Your task to perform on an android device: turn on improve location accuracy Image 0: 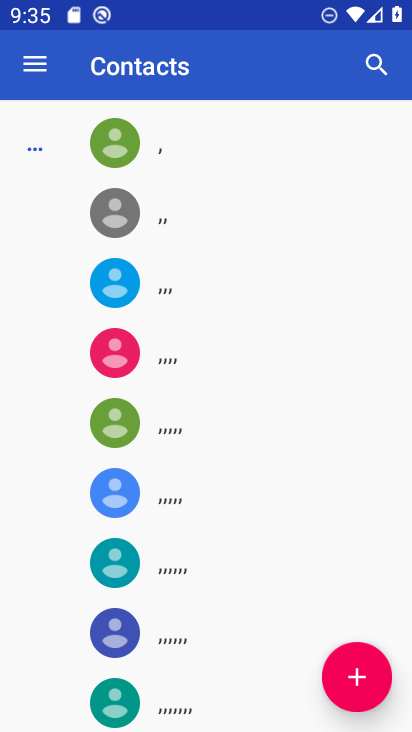
Step 0: press home button
Your task to perform on an android device: turn on improve location accuracy Image 1: 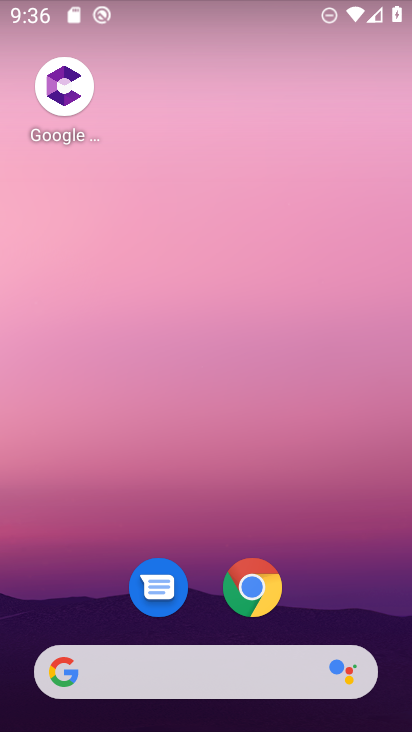
Step 1: drag from (200, 640) to (70, 7)
Your task to perform on an android device: turn on improve location accuracy Image 2: 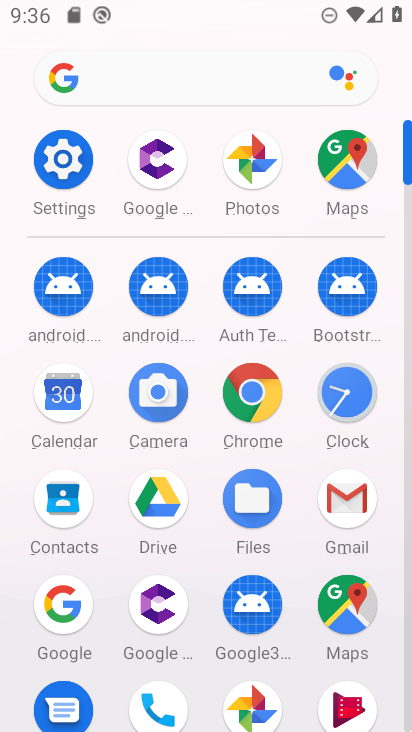
Step 2: click (71, 168)
Your task to perform on an android device: turn on improve location accuracy Image 3: 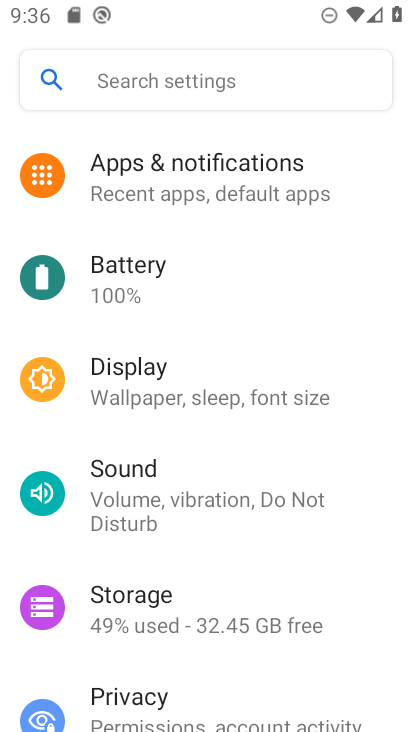
Step 3: drag from (168, 626) to (100, 241)
Your task to perform on an android device: turn on improve location accuracy Image 4: 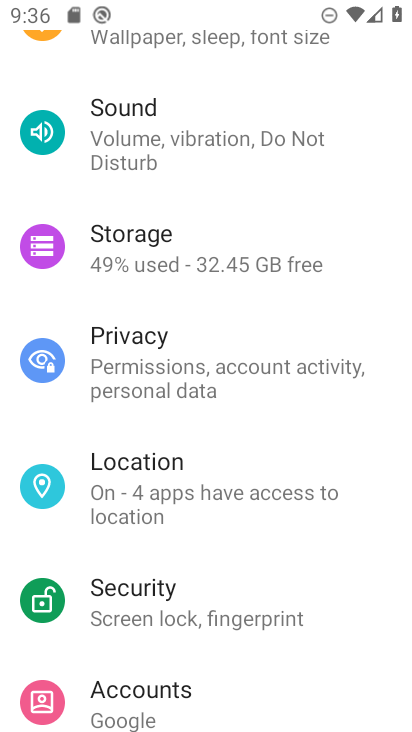
Step 4: click (139, 507)
Your task to perform on an android device: turn on improve location accuracy Image 5: 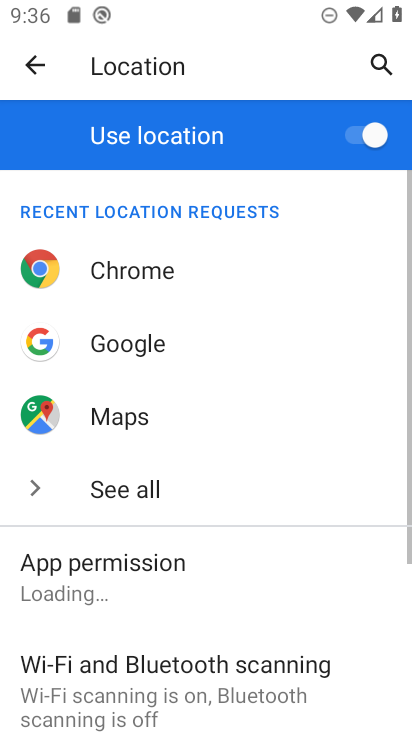
Step 5: drag from (196, 655) to (139, 274)
Your task to perform on an android device: turn on improve location accuracy Image 6: 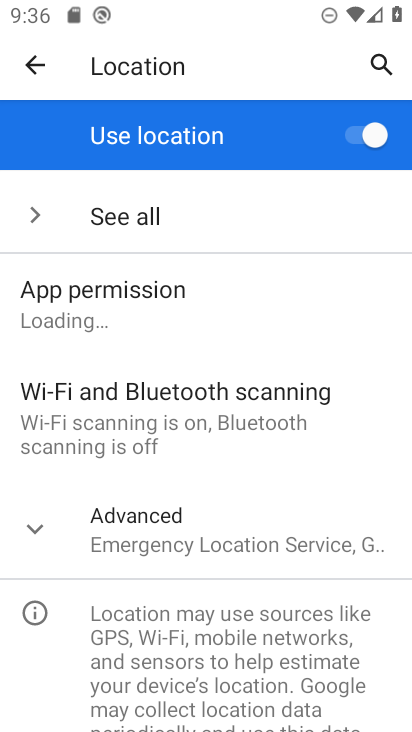
Step 6: click (179, 547)
Your task to perform on an android device: turn on improve location accuracy Image 7: 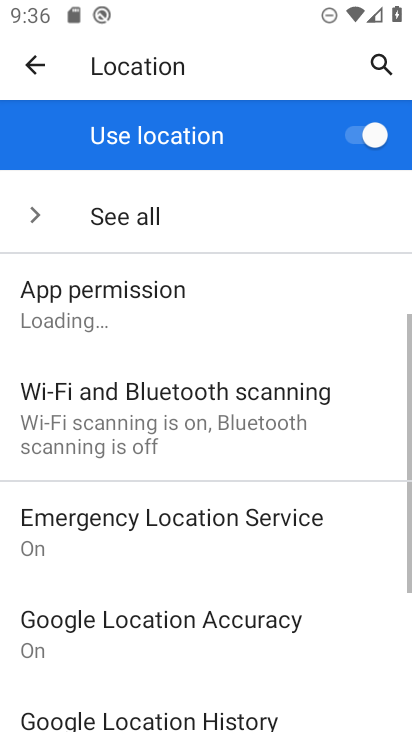
Step 7: drag from (179, 547) to (200, 189)
Your task to perform on an android device: turn on improve location accuracy Image 8: 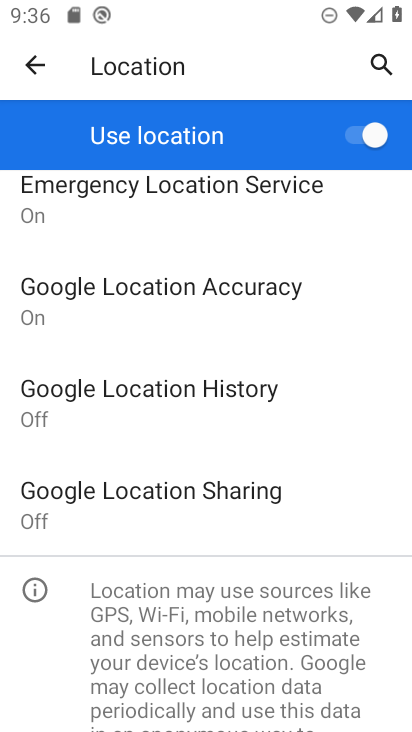
Step 8: click (211, 301)
Your task to perform on an android device: turn on improve location accuracy Image 9: 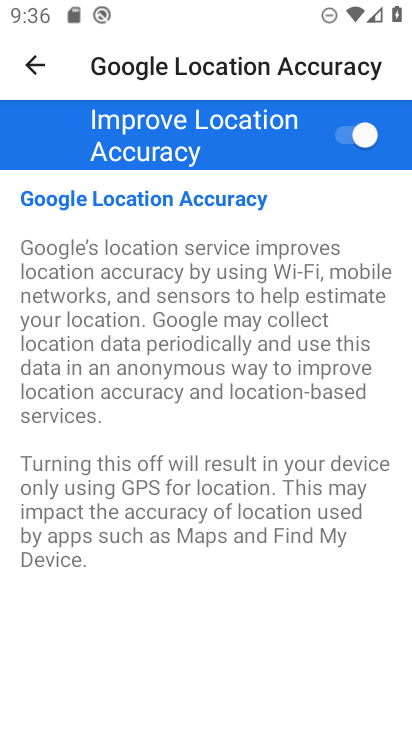
Step 9: click (361, 130)
Your task to perform on an android device: turn on improve location accuracy Image 10: 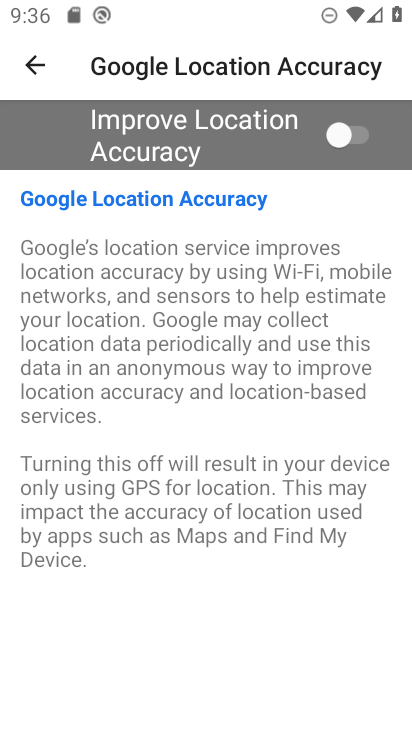
Step 10: click (358, 130)
Your task to perform on an android device: turn on improve location accuracy Image 11: 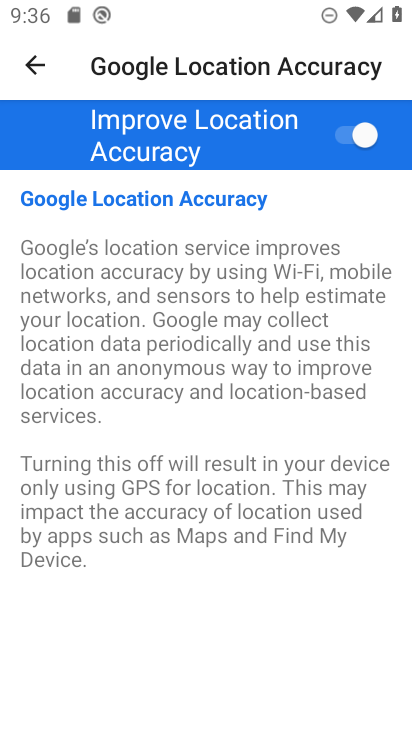
Step 11: task complete